Your task to perform on an android device: open app "PlayWell" Image 0: 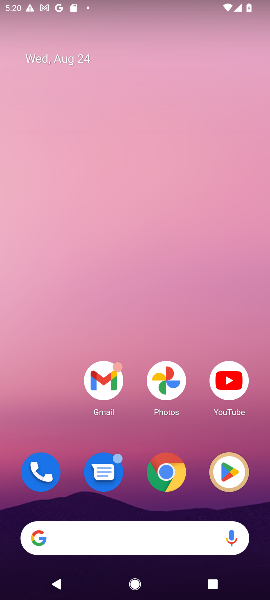
Step 0: press home button
Your task to perform on an android device: open app "PlayWell" Image 1: 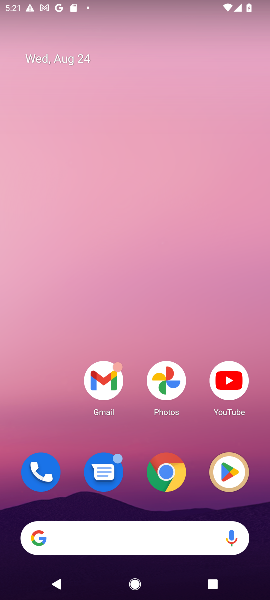
Step 1: click (225, 467)
Your task to perform on an android device: open app "PlayWell" Image 2: 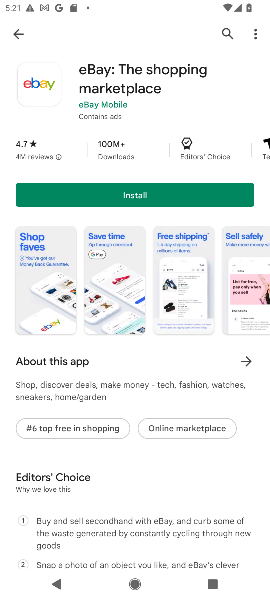
Step 2: click (227, 30)
Your task to perform on an android device: open app "PlayWell" Image 3: 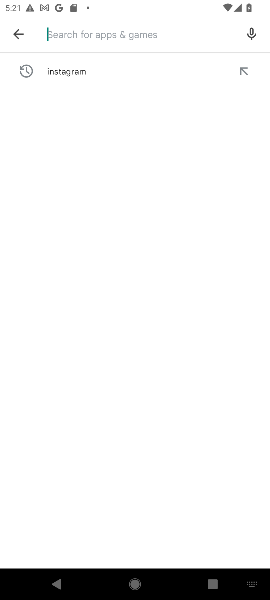
Step 3: type "PlayWell"
Your task to perform on an android device: open app "PlayWell" Image 4: 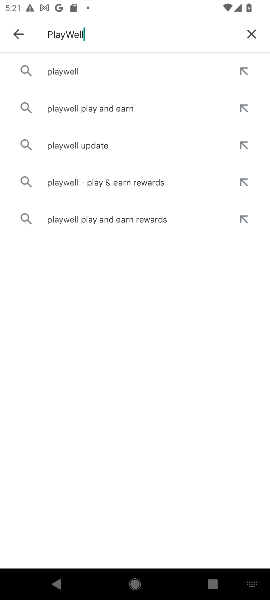
Step 4: click (99, 68)
Your task to perform on an android device: open app "PlayWell" Image 5: 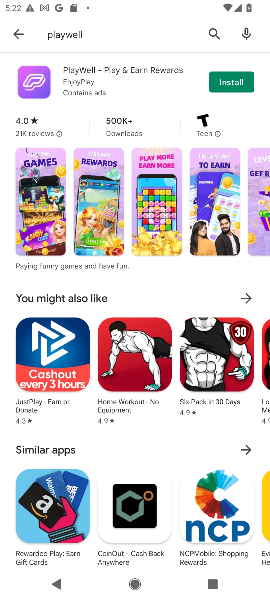
Step 5: task complete